Your task to perform on an android device: turn on priority inbox in the gmail app Image 0: 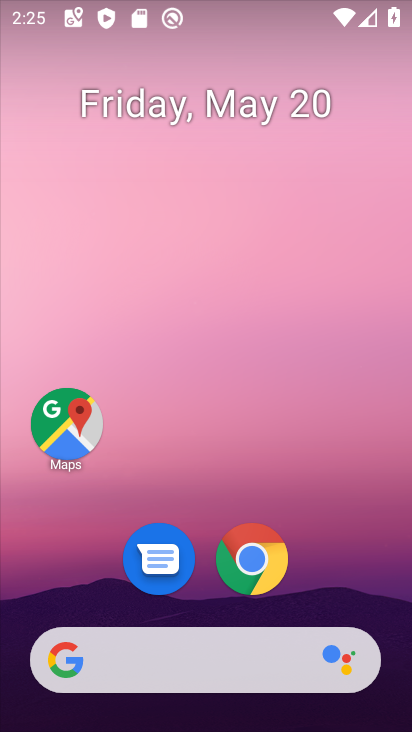
Step 0: drag from (227, 482) to (271, 32)
Your task to perform on an android device: turn on priority inbox in the gmail app Image 1: 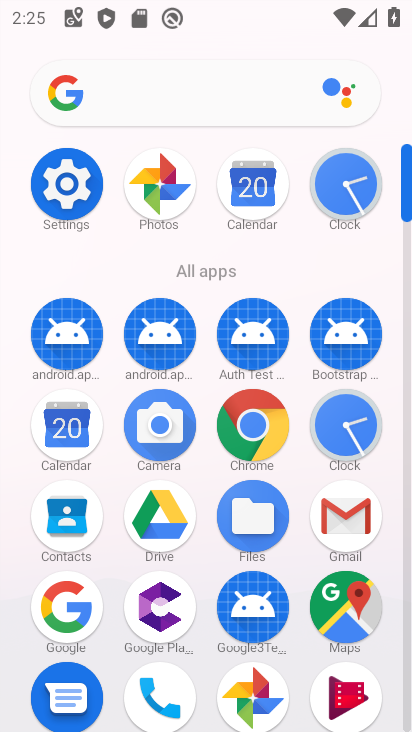
Step 1: click (320, 514)
Your task to perform on an android device: turn on priority inbox in the gmail app Image 2: 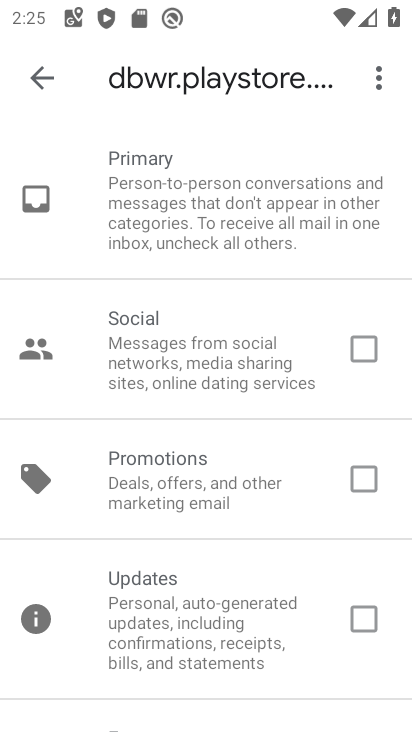
Step 2: click (42, 76)
Your task to perform on an android device: turn on priority inbox in the gmail app Image 3: 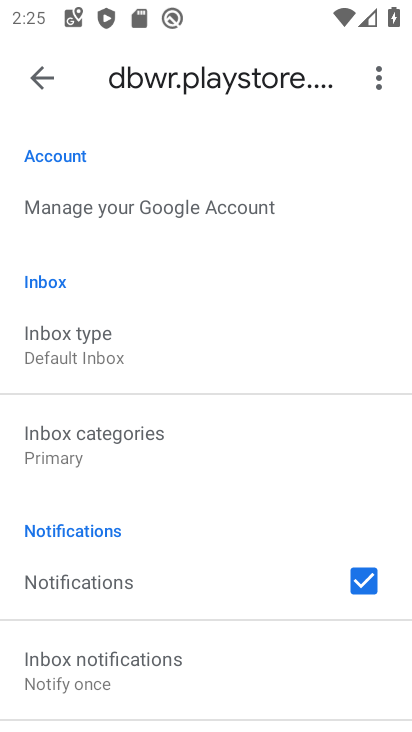
Step 3: click (71, 334)
Your task to perform on an android device: turn on priority inbox in the gmail app Image 4: 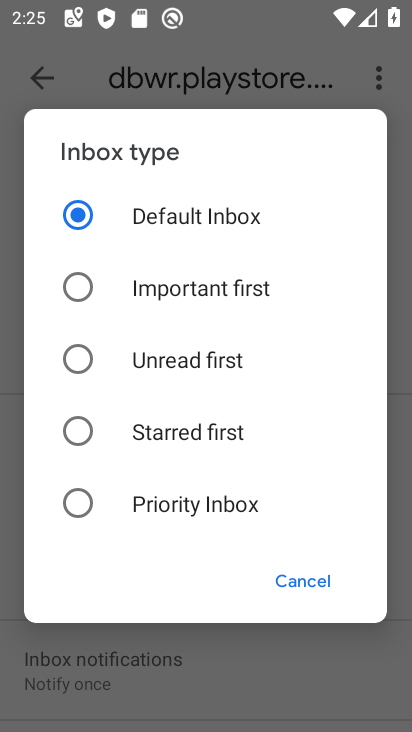
Step 4: click (77, 500)
Your task to perform on an android device: turn on priority inbox in the gmail app Image 5: 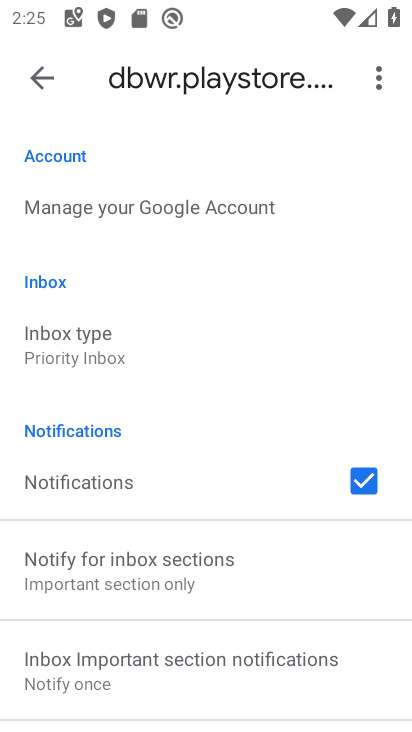
Step 5: task complete